Your task to perform on an android device: move a message to another label in the gmail app Image 0: 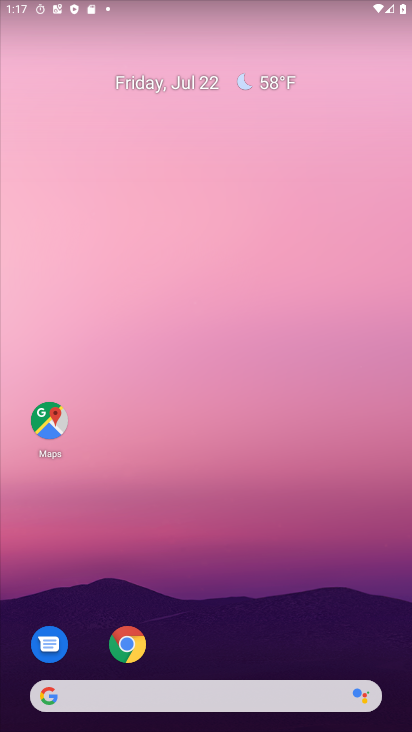
Step 0: drag from (167, 619) to (208, 168)
Your task to perform on an android device: move a message to another label in the gmail app Image 1: 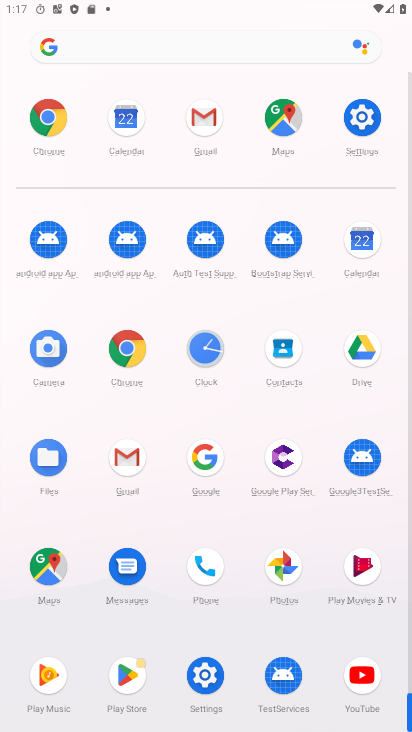
Step 1: click (109, 469)
Your task to perform on an android device: move a message to another label in the gmail app Image 2: 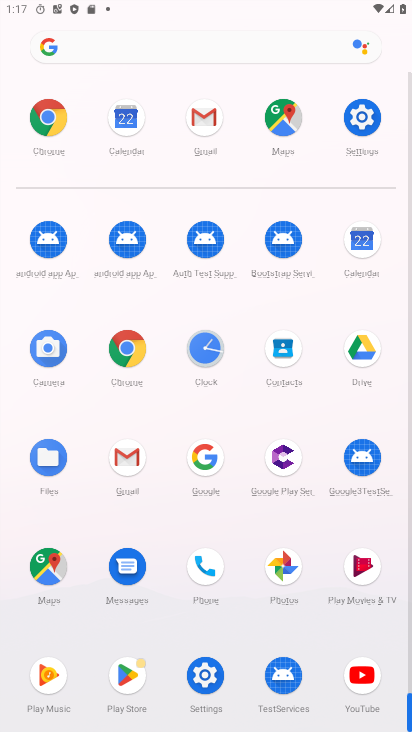
Step 2: click (109, 469)
Your task to perform on an android device: move a message to another label in the gmail app Image 3: 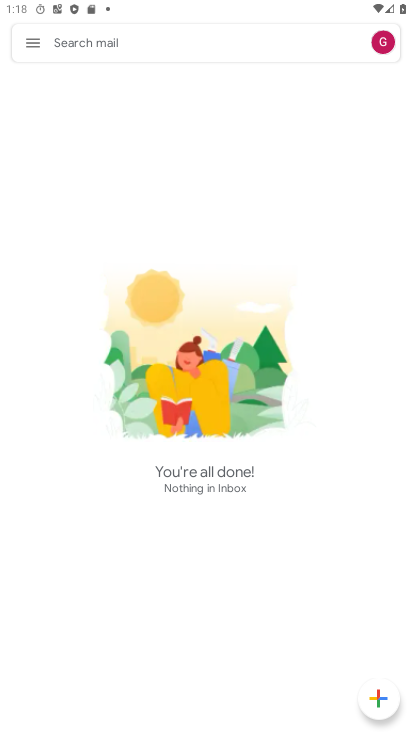
Step 3: drag from (223, 433) to (49, 1)
Your task to perform on an android device: move a message to another label in the gmail app Image 4: 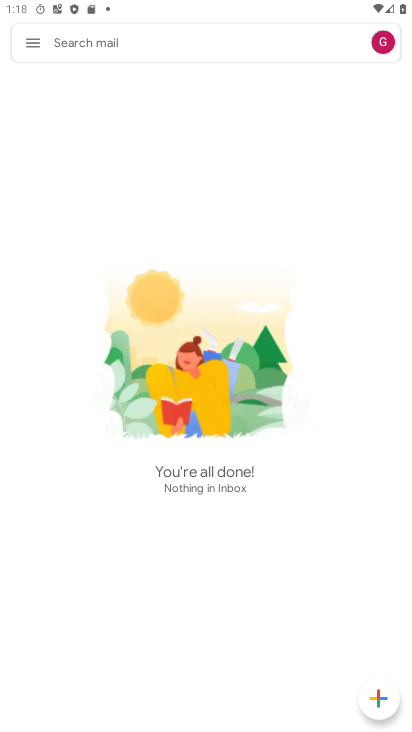
Step 4: click (31, 39)
Your task to perform on an android device: move a message to another label in the gmail app Image 5: 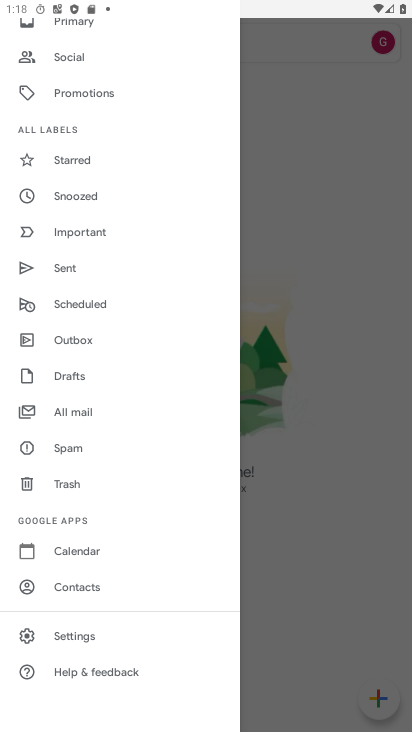
Step 5: drag from (99, 608) to (173, 246)
Your task to perform on an android device: move a message to another label in the gmail app Image 6: 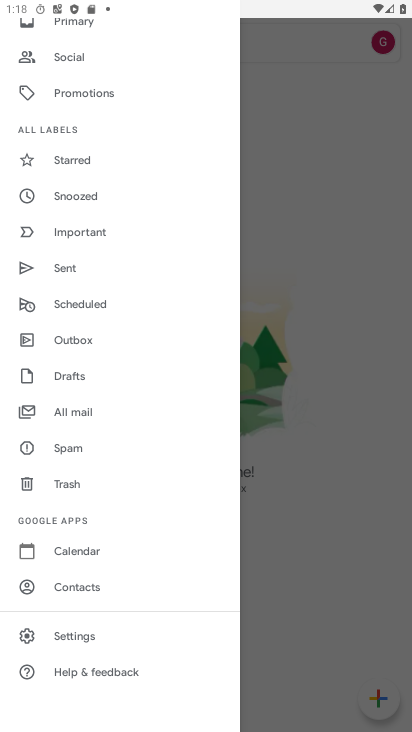
Step 6: click (94, 629)
Your task to perform on an android device: move a message to another label in the gmail app Image 7: 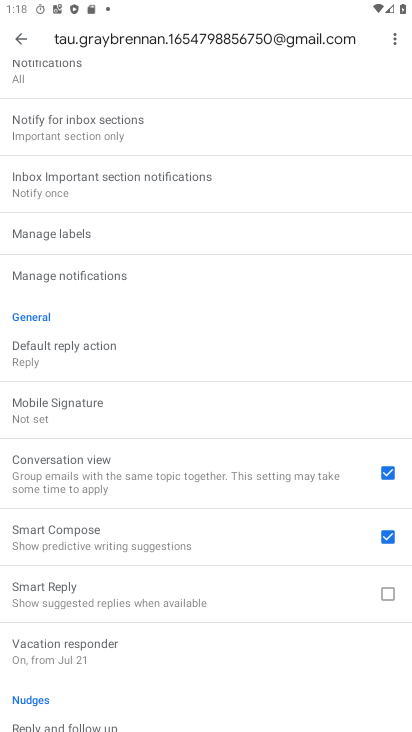
Step 7: click (33, 37)
Your task to perform on an android device: move a message to another label in the gmail app Image 8: 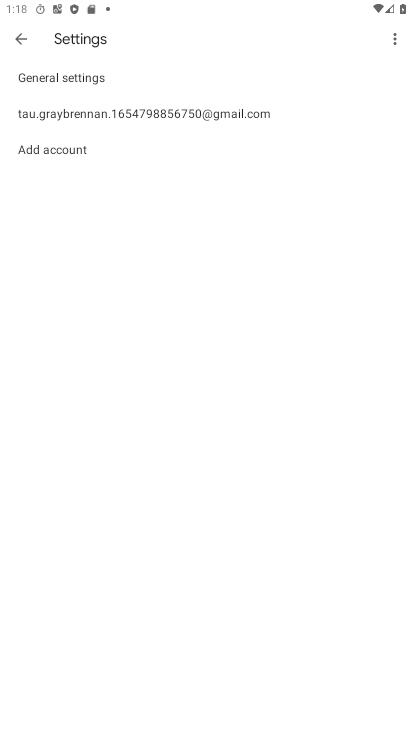
Step 8: click (17, 46)
Your task to perform on an android device: move a message to another label in the gmail app Image 9: 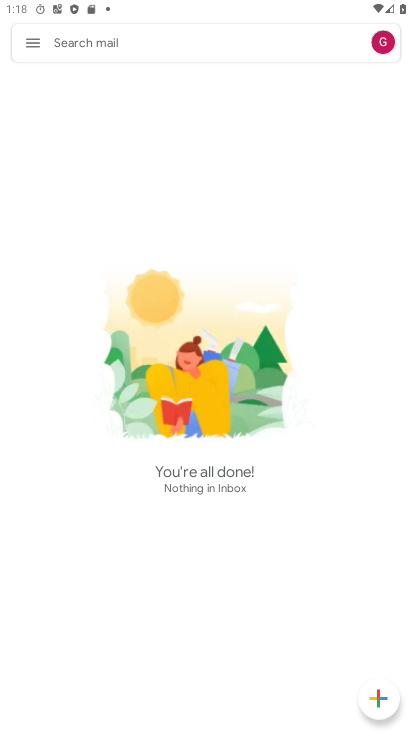
Step 9: task complete